Your task to perform on an android device: Open Wikipedia Image 0: 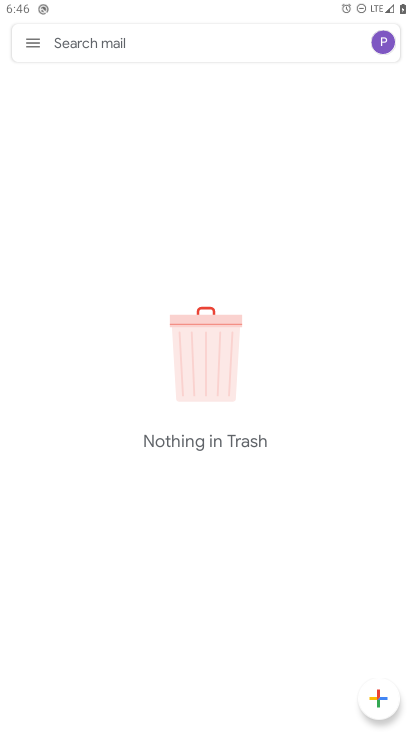
Step 0: press home button
Your task to perform on an android device: Open Wikipedia Image 1: 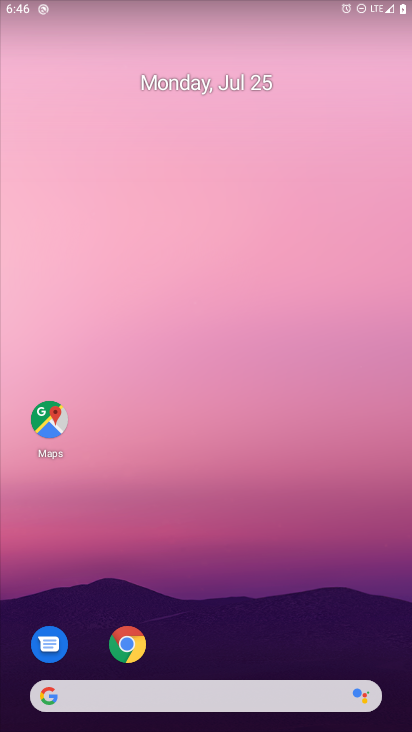
Step 1: click (48, 696)
Your task to perform on an android device: Open Wikipedia Image 2: 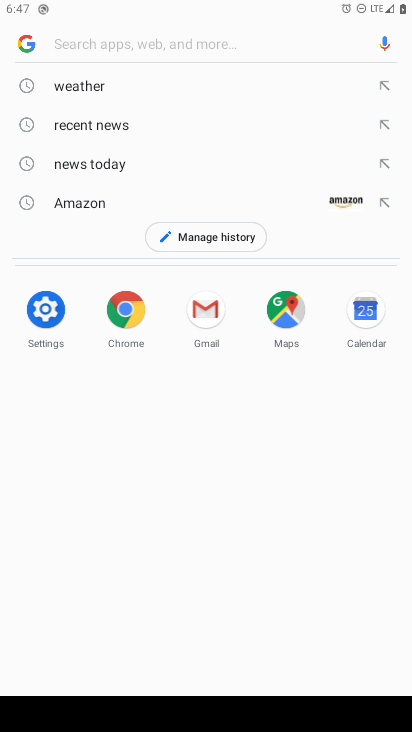
Step 2: type "Wikipedia"
Your task to perform on an android device: Open Wikipedia Image 3: 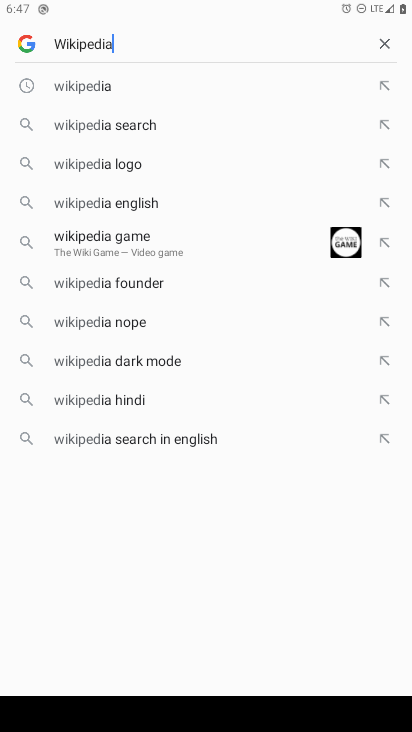
Step 3: press enter
Your task to perform on an android device: Open Wikipedia Image 4: 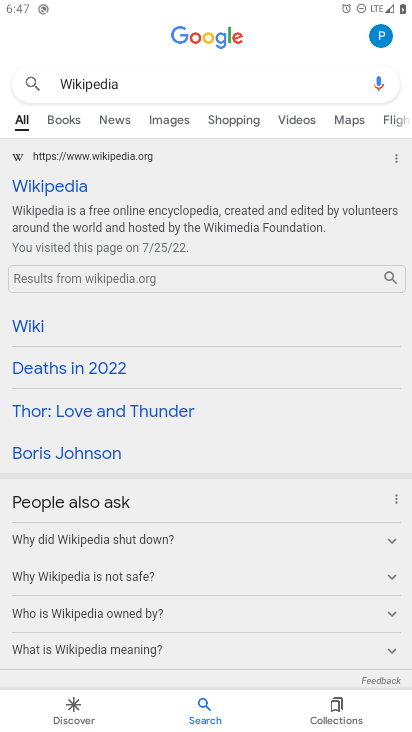
Step 4: click (48, 186)
Your task to perform on an android device: Open Wikipedia Image 5: 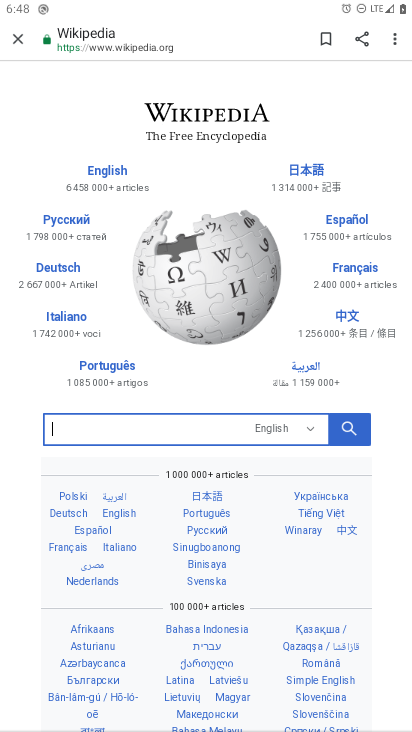
Step 5: task complete